Your task to perform on an android device: Open eBay Image 0: 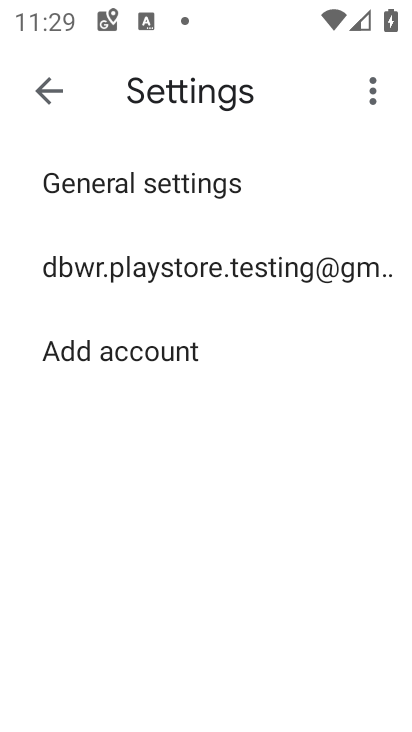
Step 0: press home button
Your task to perform on an android device: Open eBay Image 1: 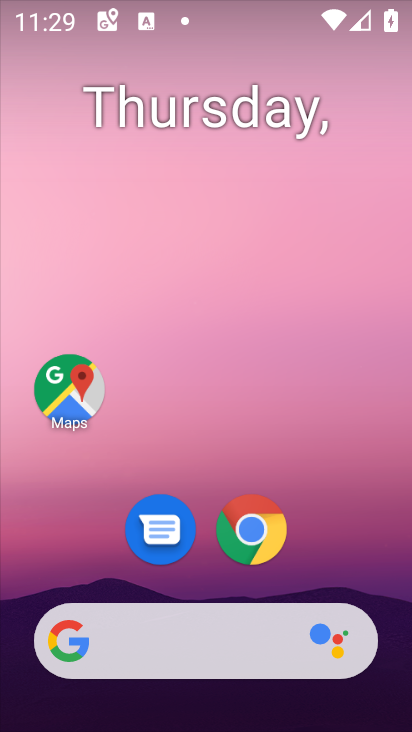
Step 1: drag from (212, 631) to (212, 123)
Your task to perform on an android device: Open eBay Image 2: 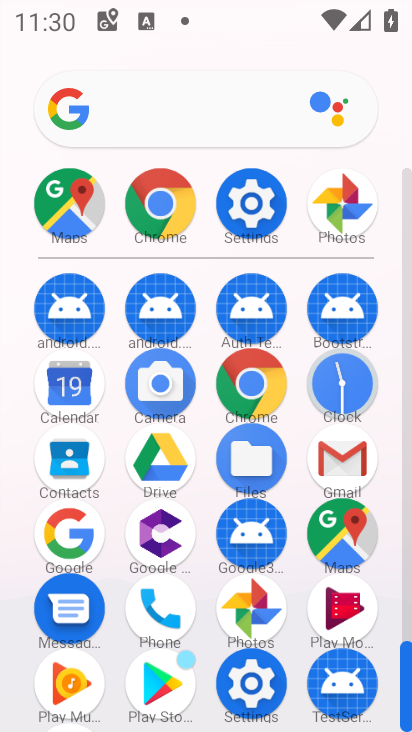
Step 2: click (158, 201)
Your task to perform on an android device: Open eBay Image 3: 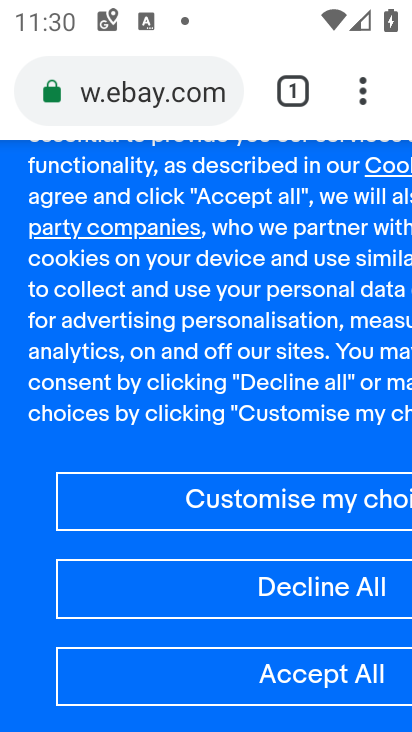
Step 3: task complete